Your task to perform on an android device: open app "VLC for Android" (install if not already installed), go to login, and select forgot password Image 0: 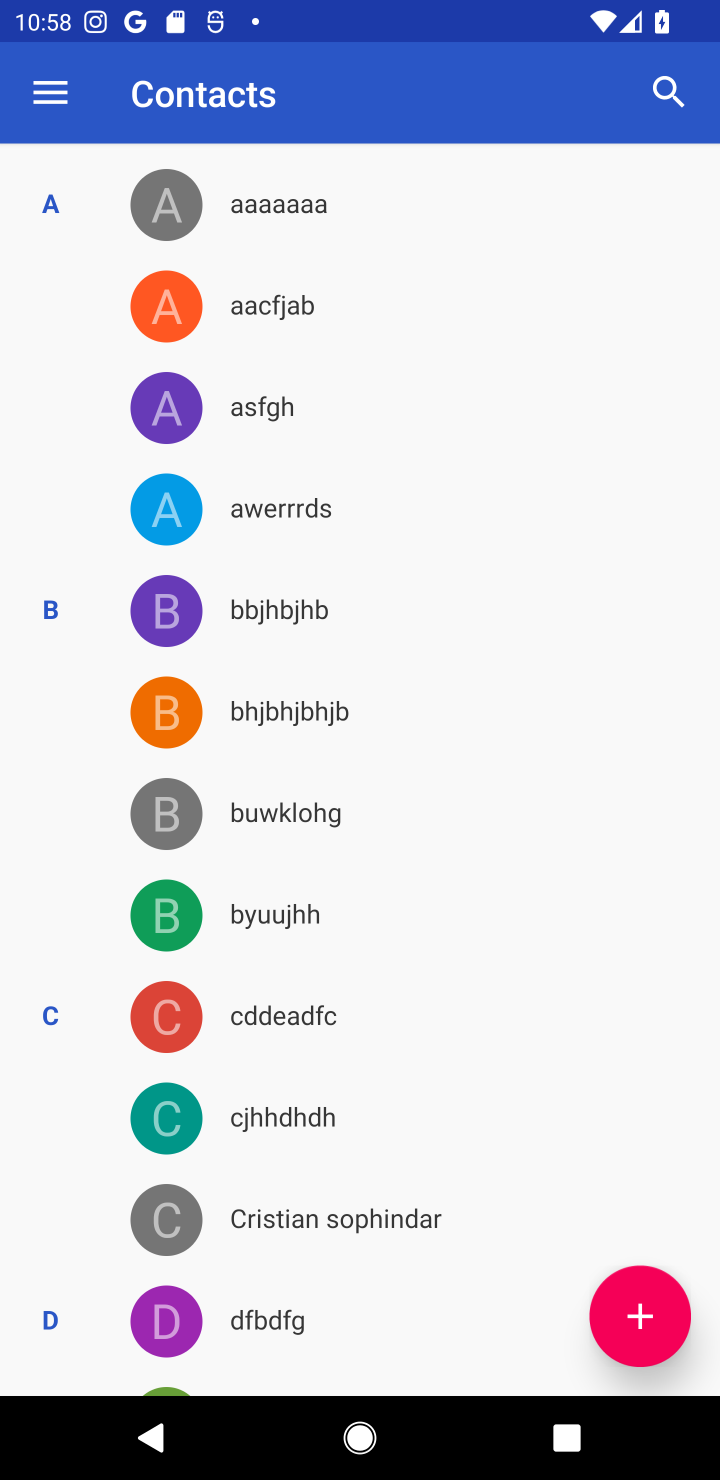
Step 0: press back button
Your task to perform on an android device: open app "VLC for Android" (install if not already installed), go to login, and select forgot password Image 1: 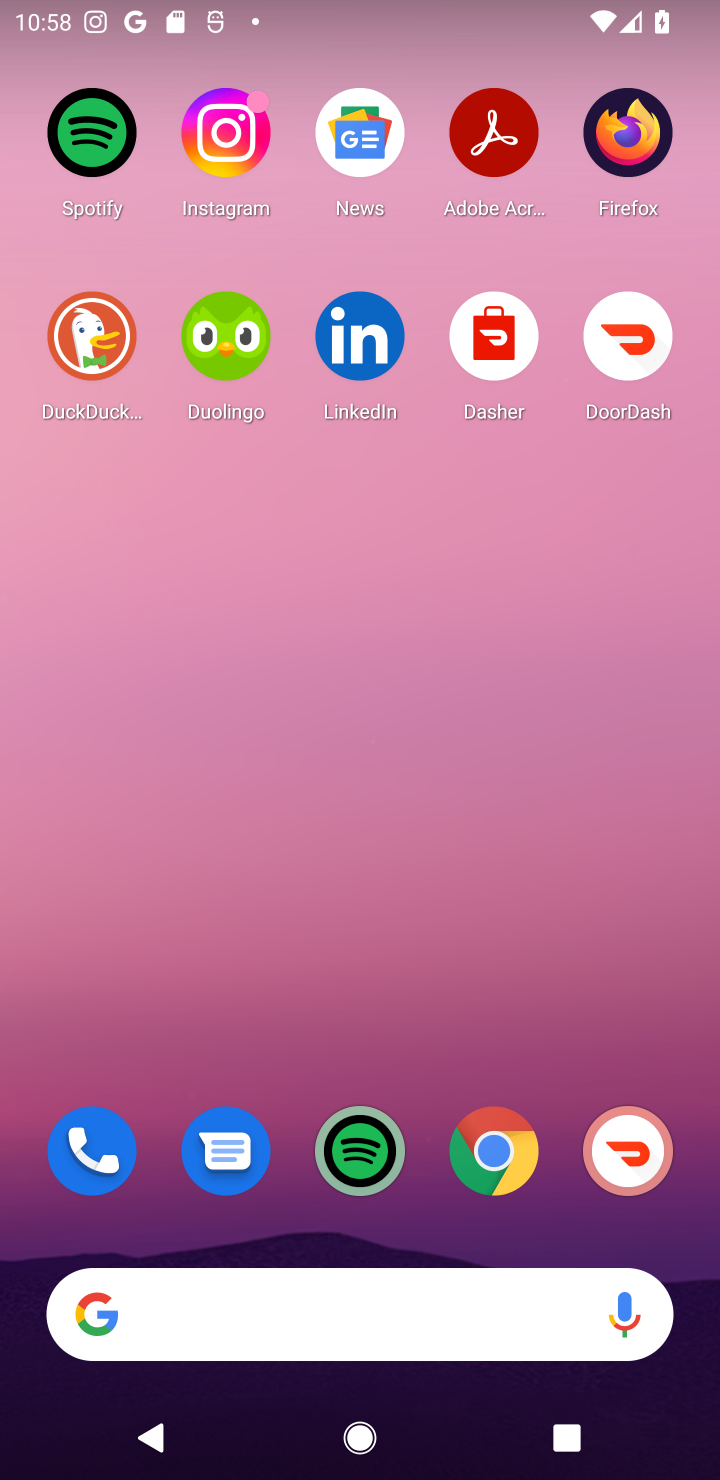
Step 1: drag from (398, 952) to (560, 7)
Your task to perform on an android device: open app "VLC for Android" (install if not already installed), go to login, and select forgot password Image 2: 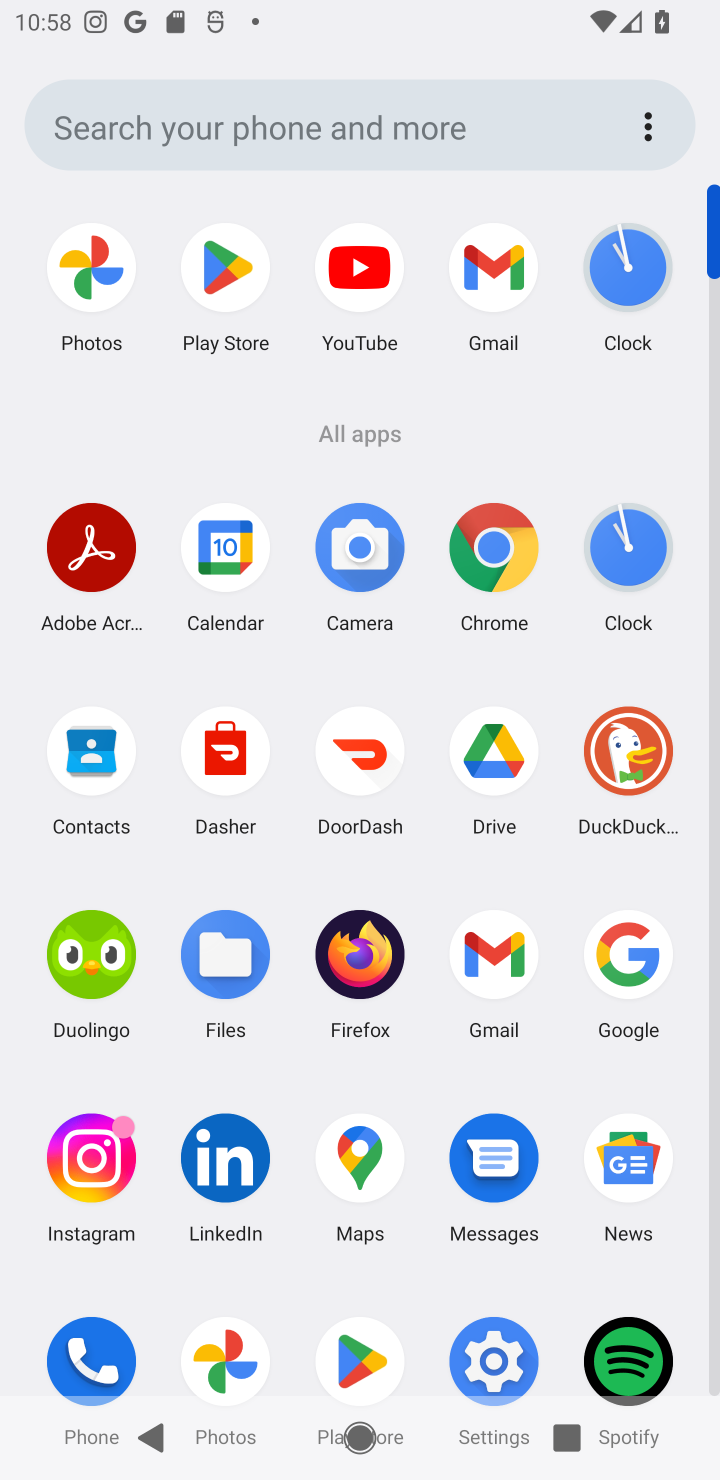
Step 2: click (239, 263)
Your task to perform on an android device: open app "VLC for Android" (install if not already installed), go to login, and select forgot password Image 3: 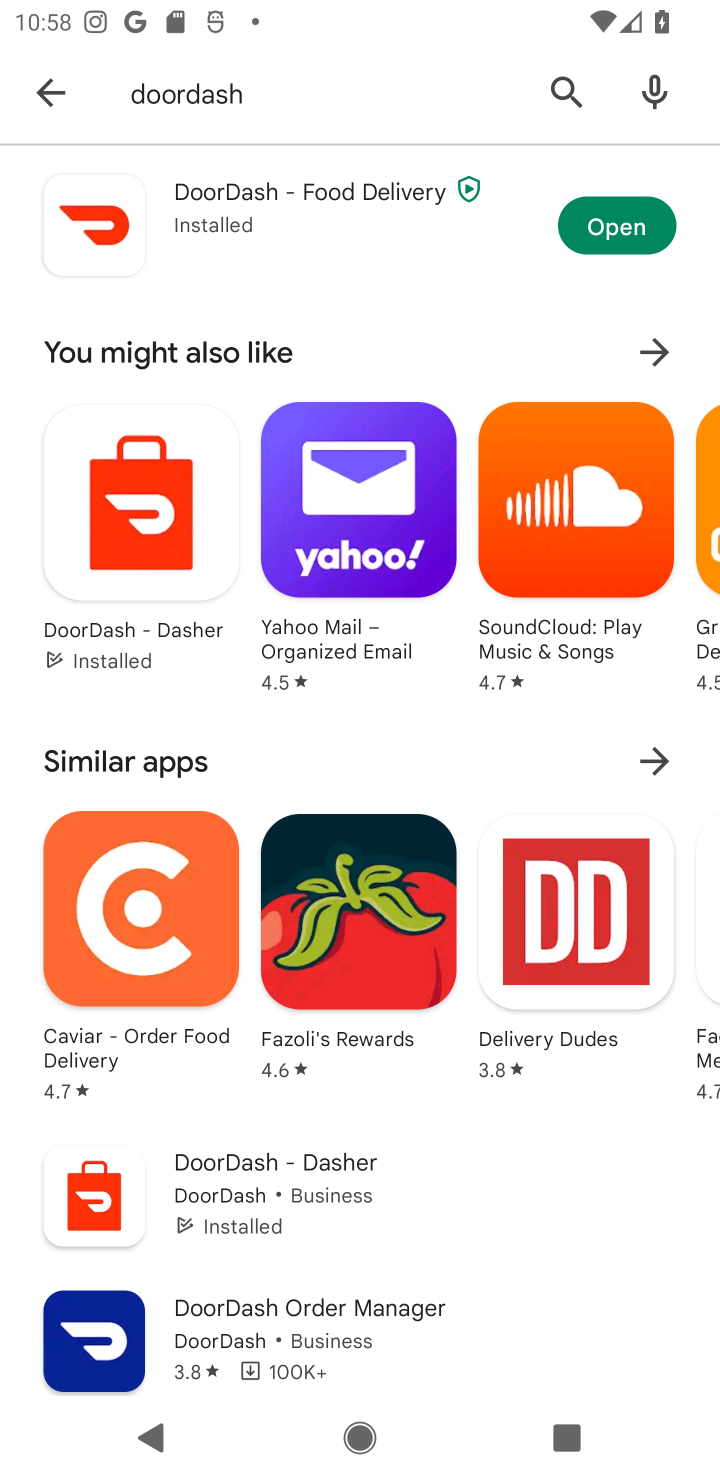
Step 3: click (576, 73)
Your task to perform on an android device: open app "VLC for Android" (install if not already installed), go to login, and select forgot password Image 4: 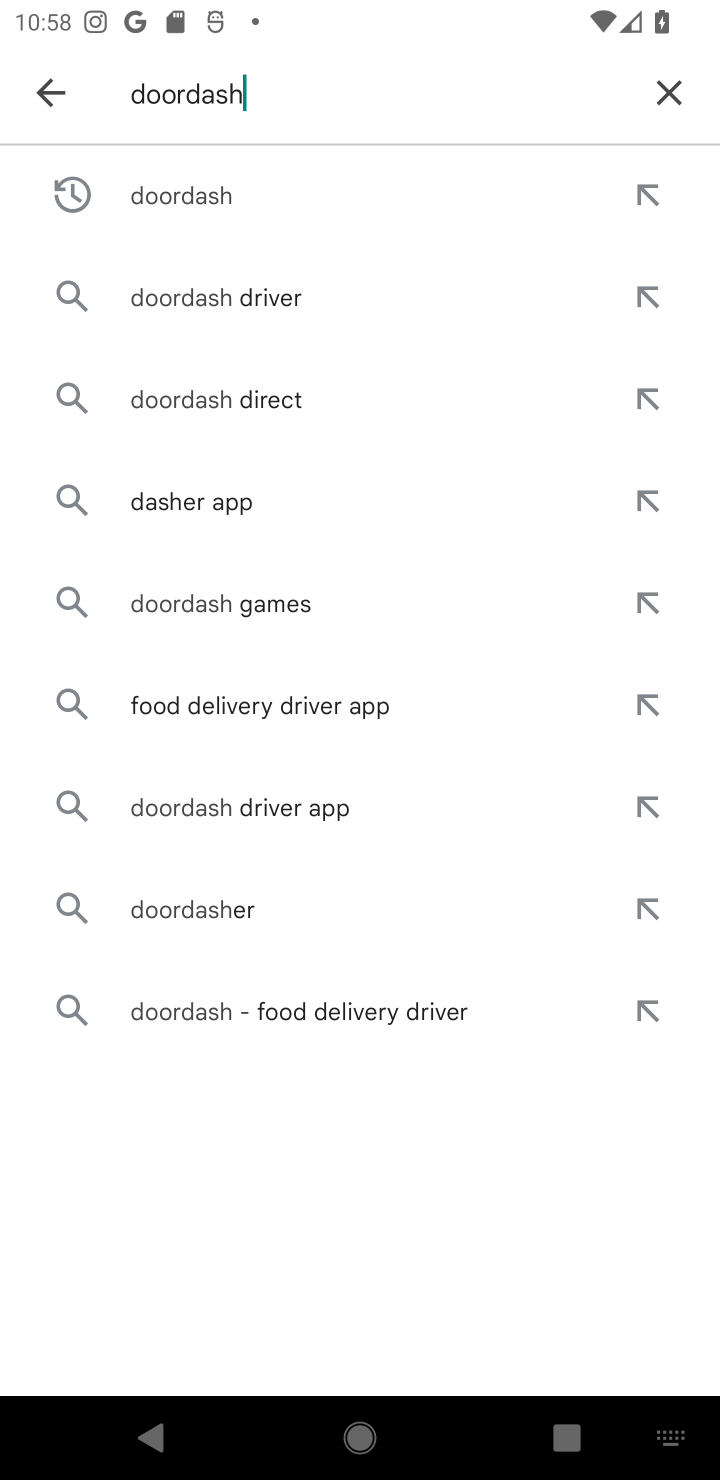
Step 4: click (697, 81)
Your task to perform on an android device: open app "VLC for Android" (install if not already installed), go to login, and select forgot password Image 5: 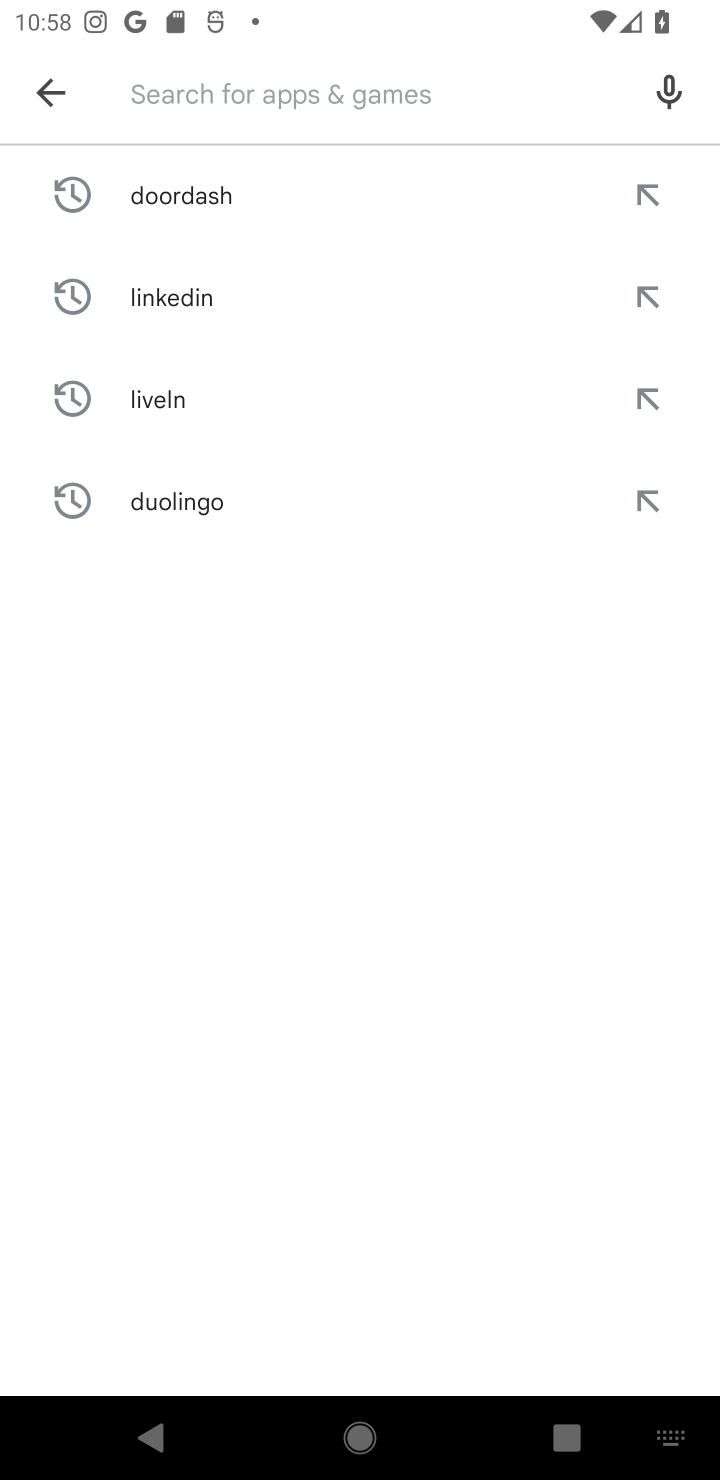
Step 5: type "vlc"
Your task to perform on an android device: open app "VLC for Android" (install if not already installed), go to login, and select forgot password Image 6: 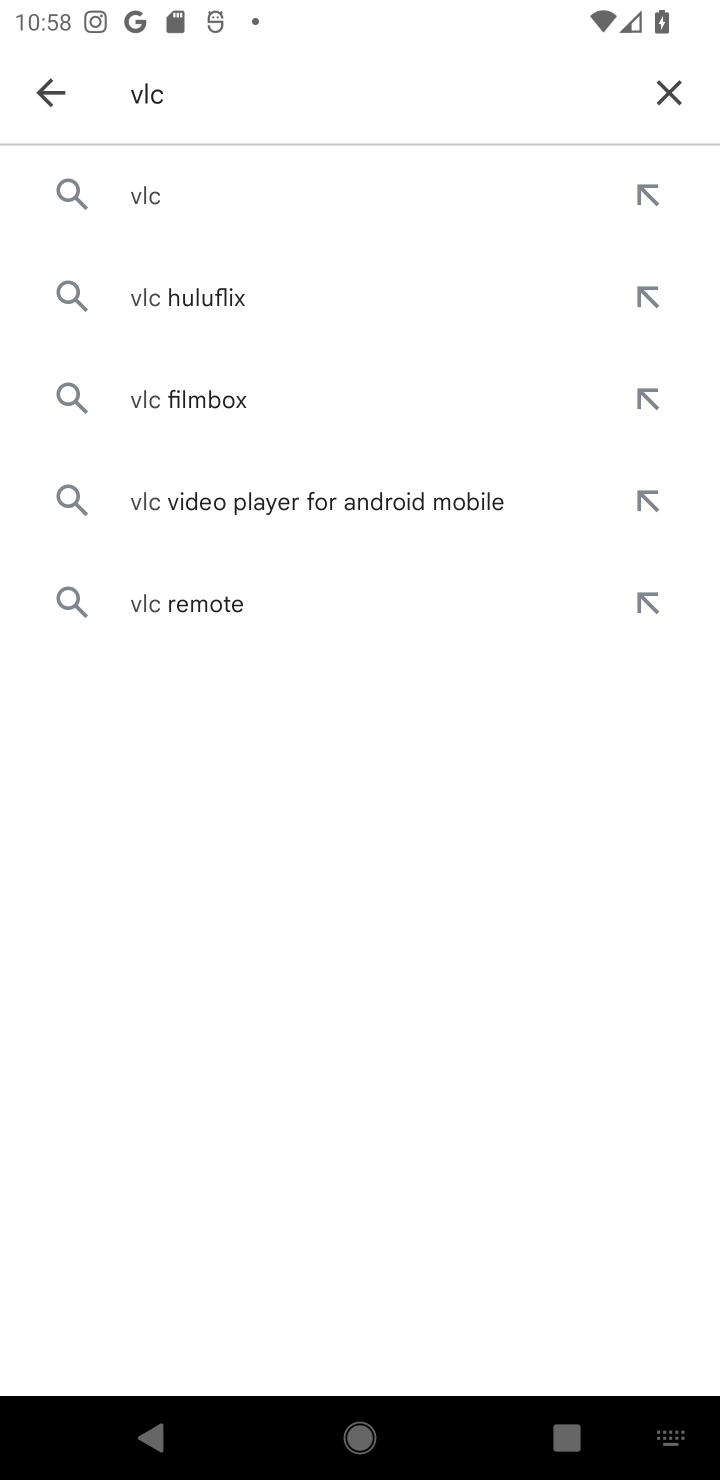
Step 6: click (164, 193)
Your task to perform on an android device: open app "VLC for Android" (install if not already installed), go to login, and select forgot password Image 7: 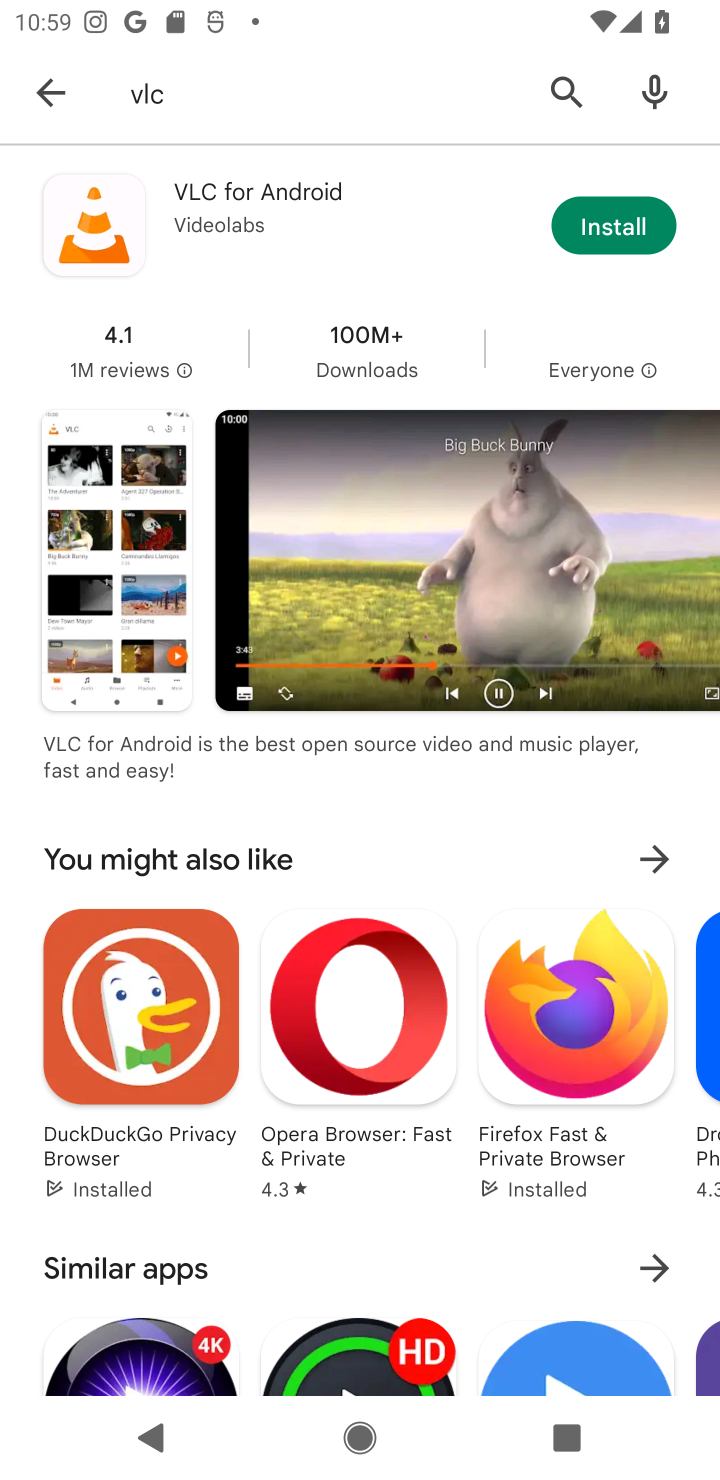
Step 7: click (595, 226)
Your task to perform on an android device: open app "VLC for Android" (install if not already installed), go to login, and select forgot password Image 8: 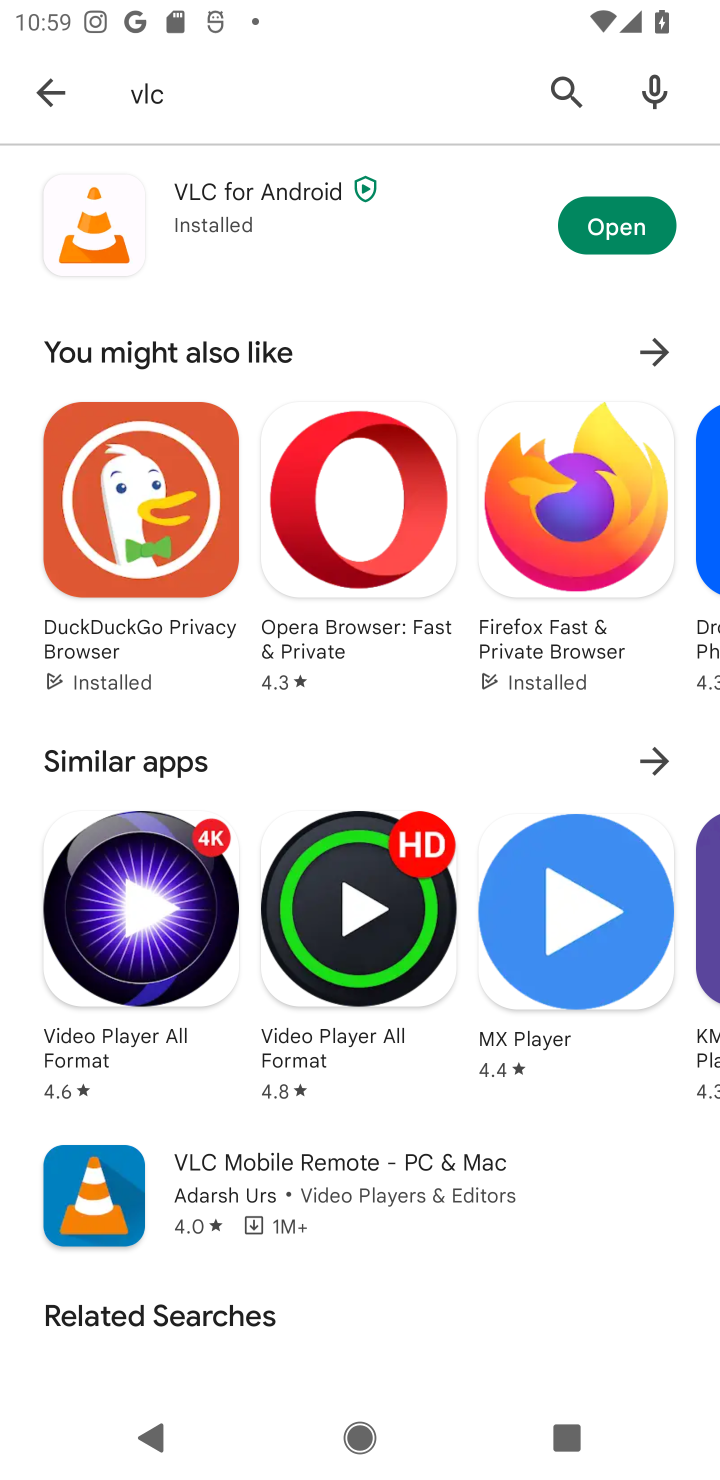
Step 8: click (618, 228)
Your task to perform on an android device: open app "VLC for Android" (install if not already installed), go to login, and select forgot password Image 9: 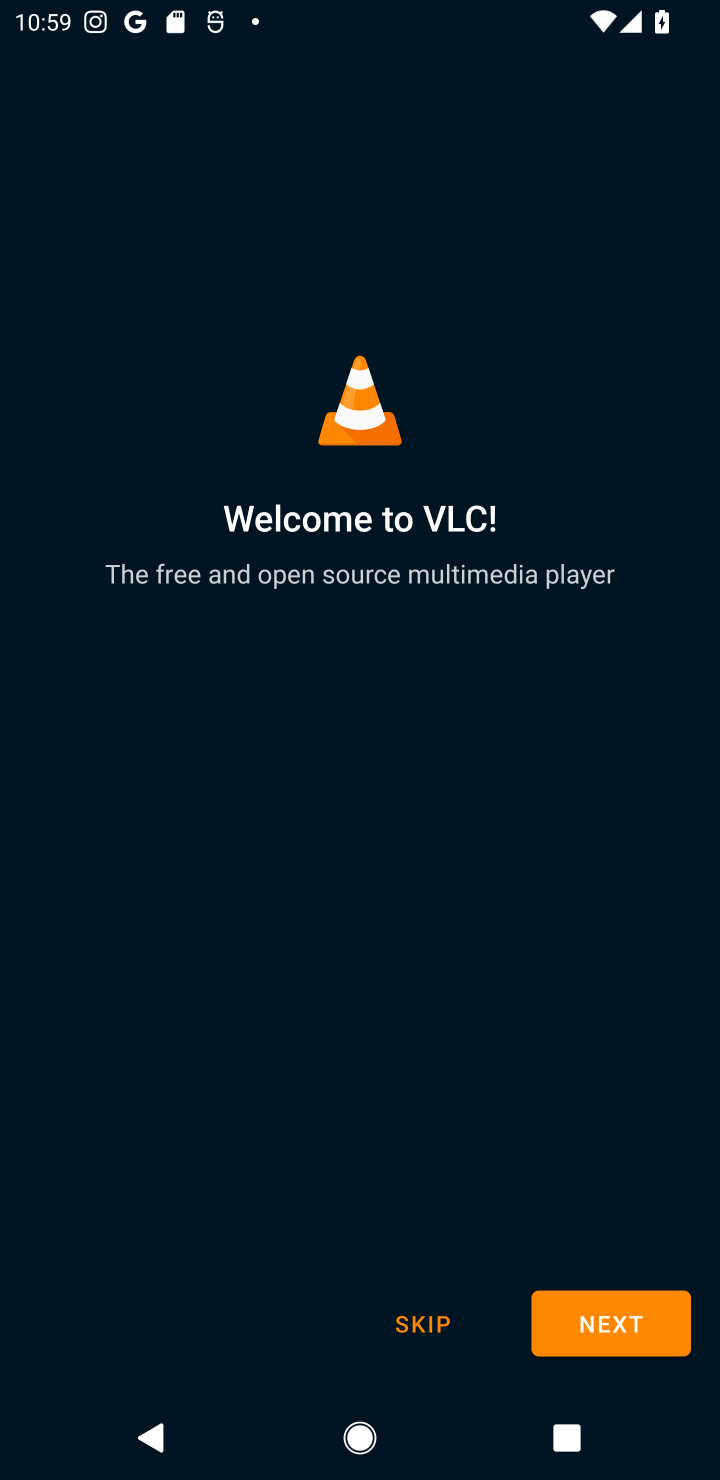
Step 9: click (605, 1329)
Your task to perform on an android device: open app "VLC for Android" (install if not already installed), go to login, and select forgot password Image 10: 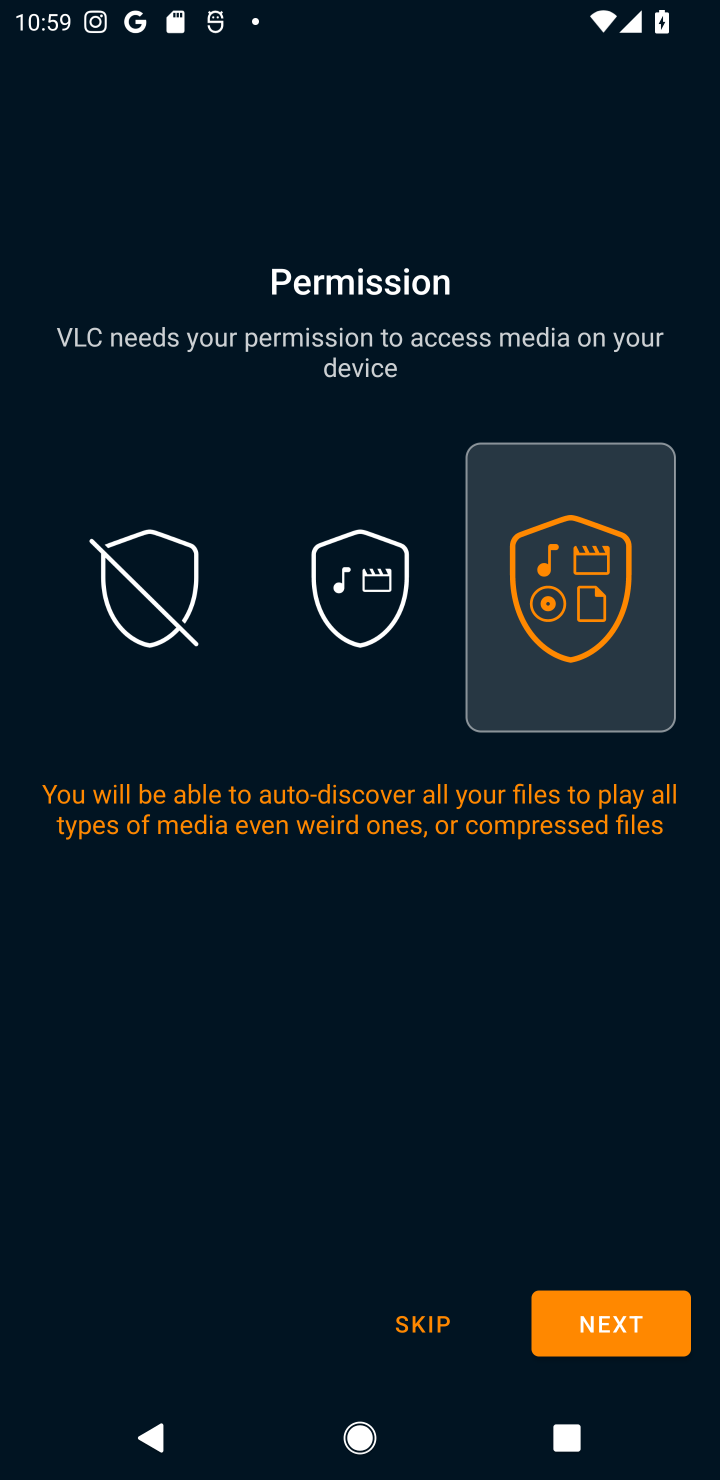
Step 10: click (445, 1325)
Your task to perform on an android device: open app "VLC for Android" (install if not already installed), go to login, and select forgot password Image 11: 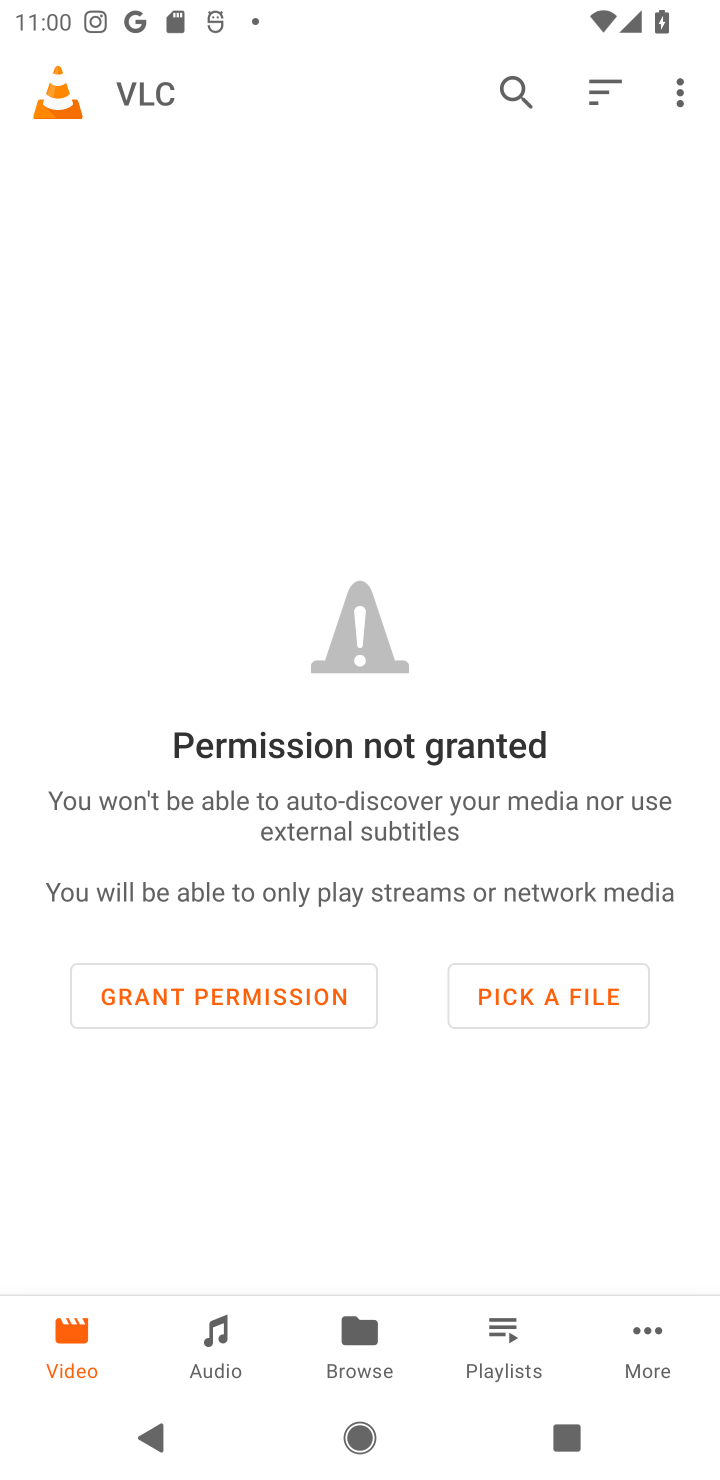
Step 11: task complete